Your task to perform on an android device: set an alarm Image 0: 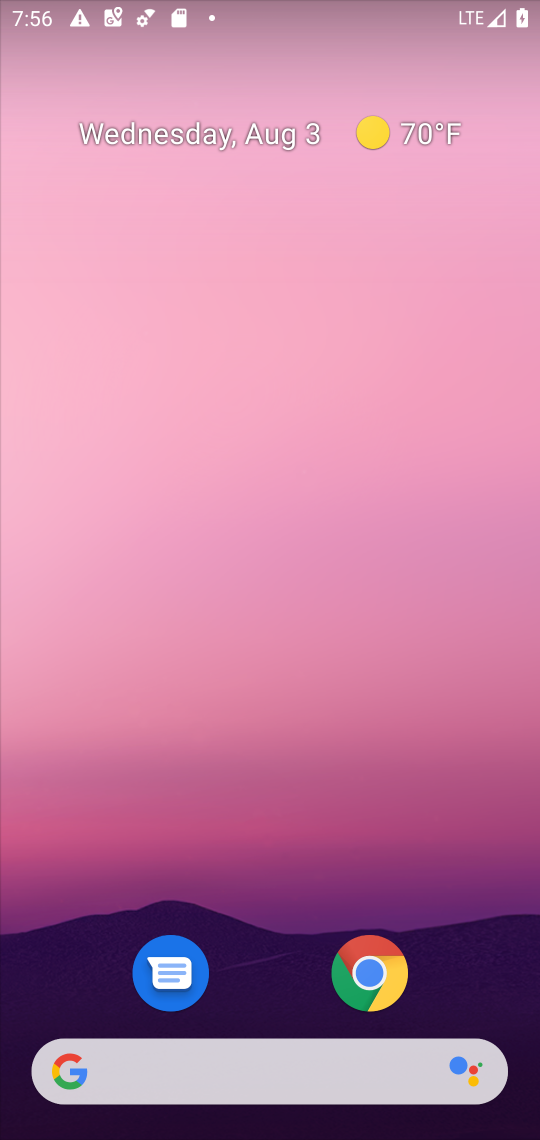
Step 0: press home button
Your task to perform on an android device: set an alarm Image 1: 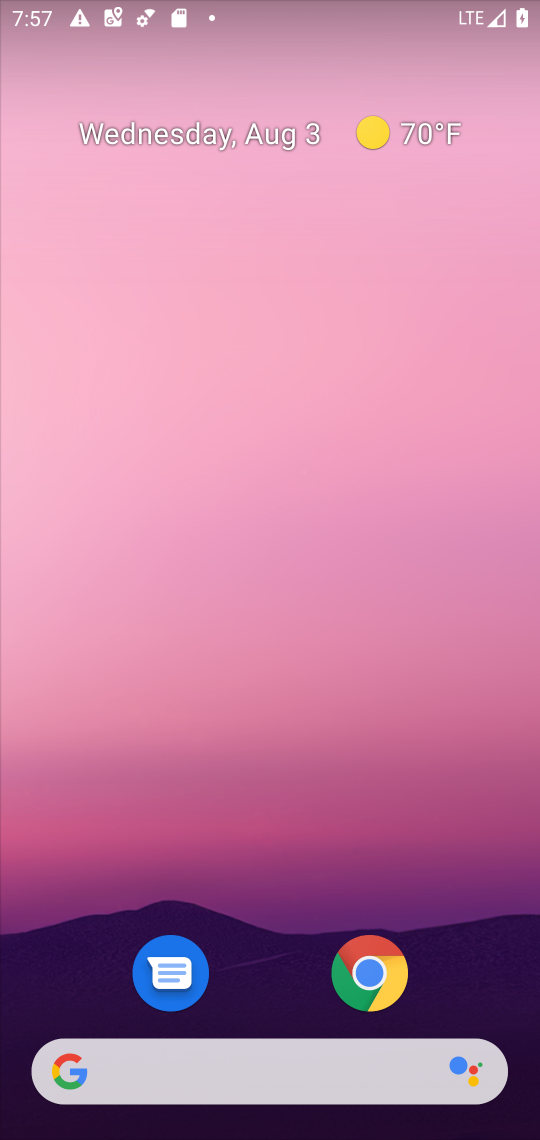
Step 1: drag from (268, 1005) to (284, 69)
Your task to perform on an android device: set an alarm Image 2: 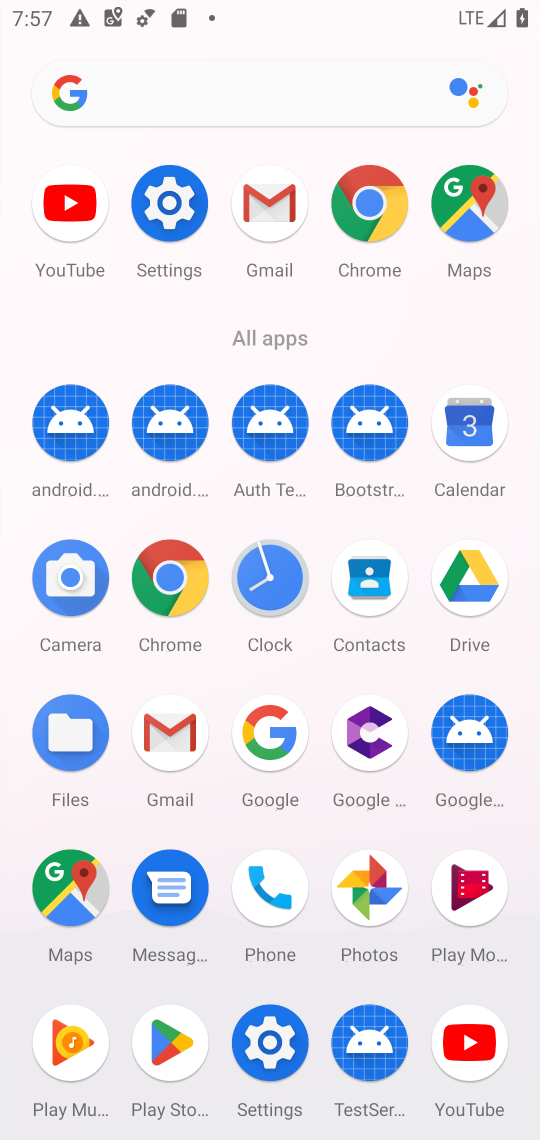
Step 2: click (266, 562)
Your task to perform on an android device: set an alarm Image 3: 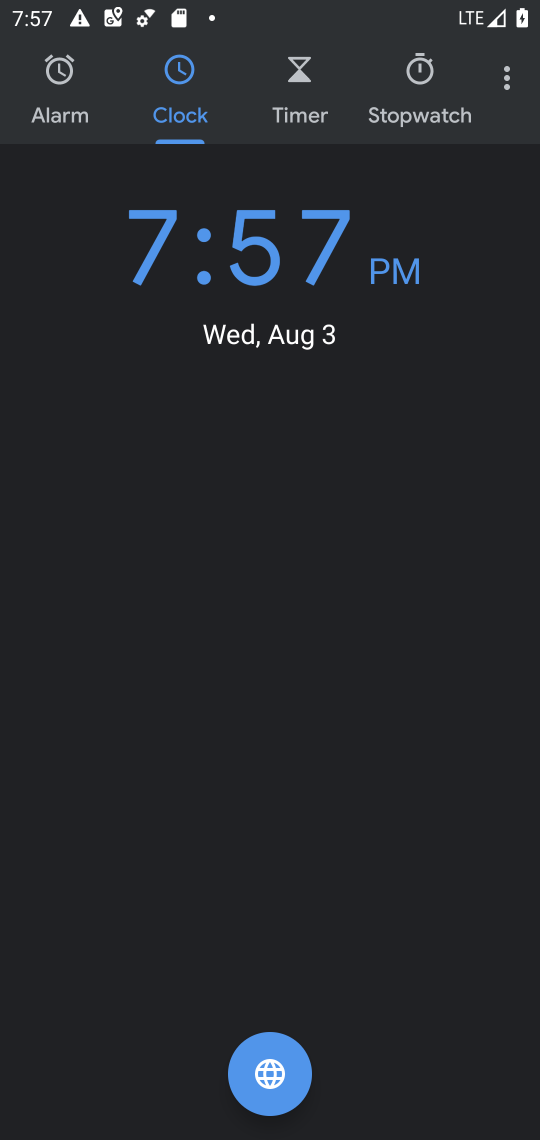
Step 3: click (60, 73)
Your task to perform on an android device: set an alarm Image 4: 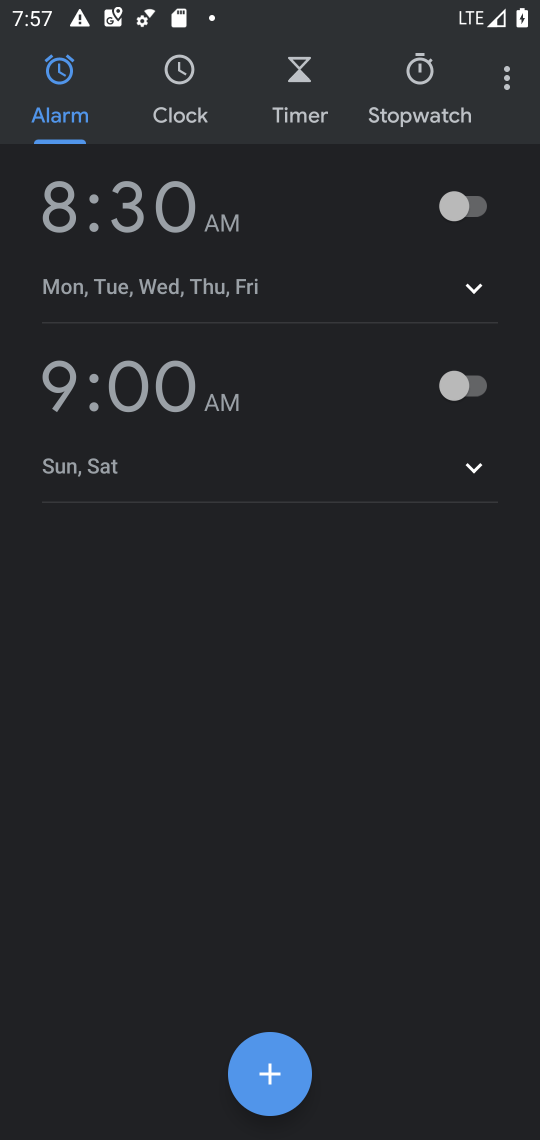
Step 4: click (472, 208)
Your task to perform on an android device: set an alarm Image 5: 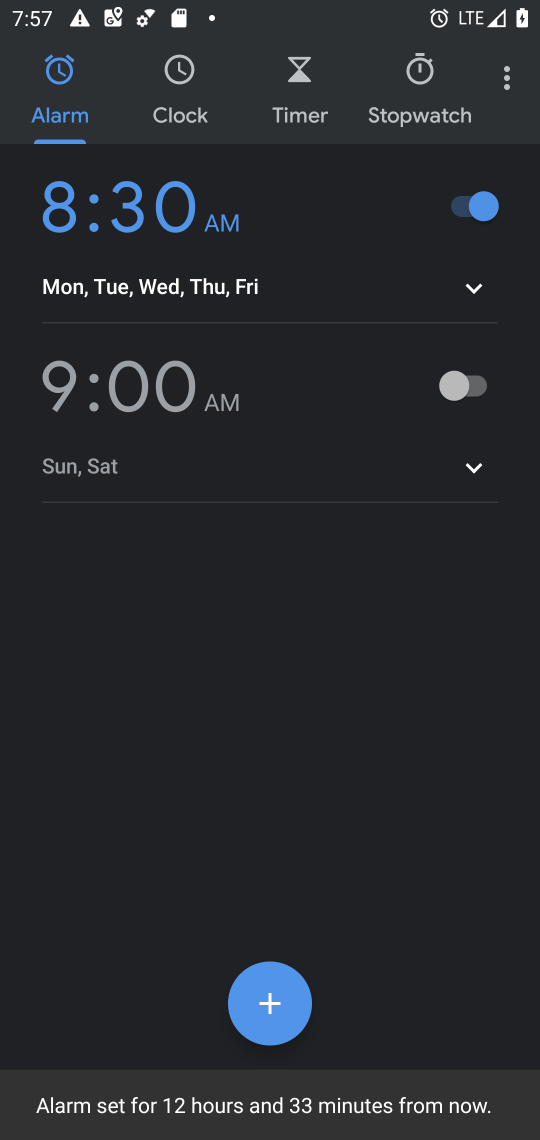
Step 5: click (467, 381)
Your task to perform on an android device: set an alarm Image 6: 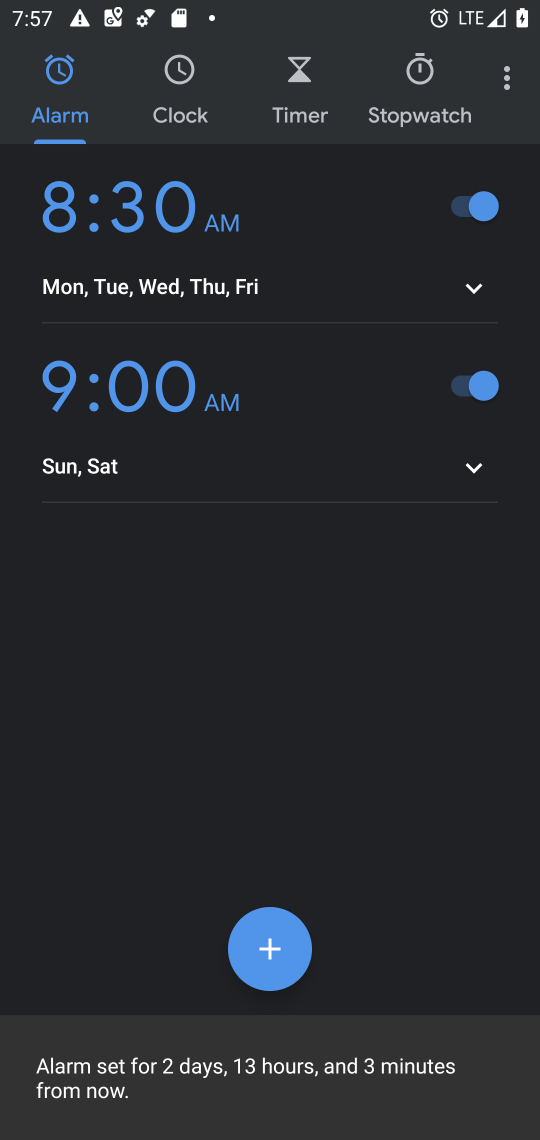
Step 6: task complete